Your task to perform on an android device: check out phone information Image 0: 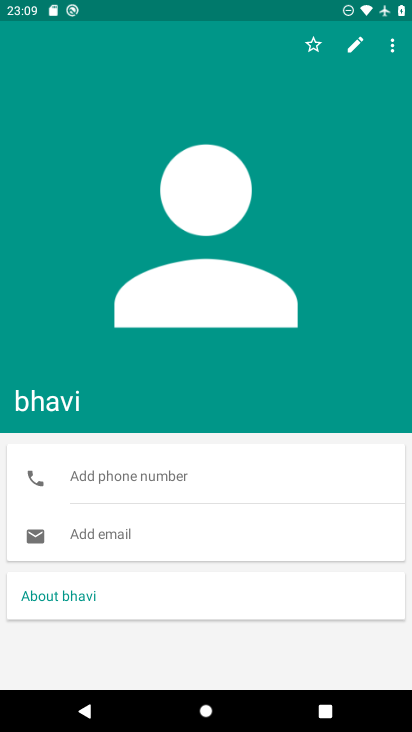
Step 0: press home button
Your task to perform on an android device: check out phone information Image 1: 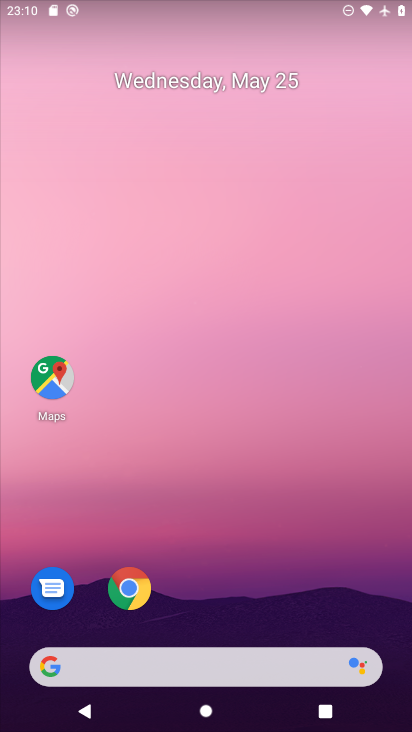
Step 1: drag from (234, 587) to (213, 89)
Your task to perform on an android device: check out phone information Image 2: 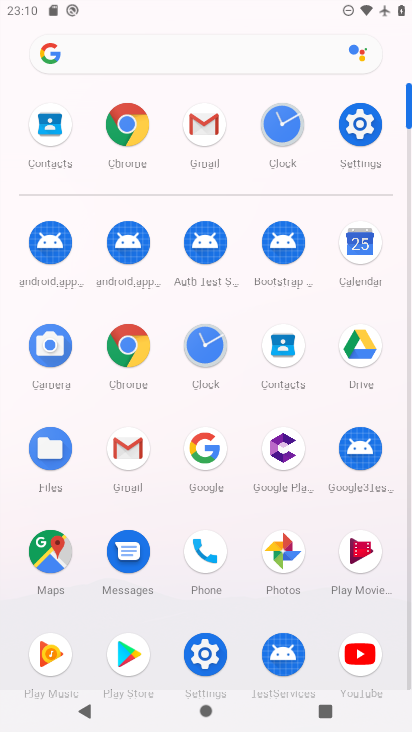
Step 2: click (206, 562)
Your task to perform on an android device: check out phone information Image 3: 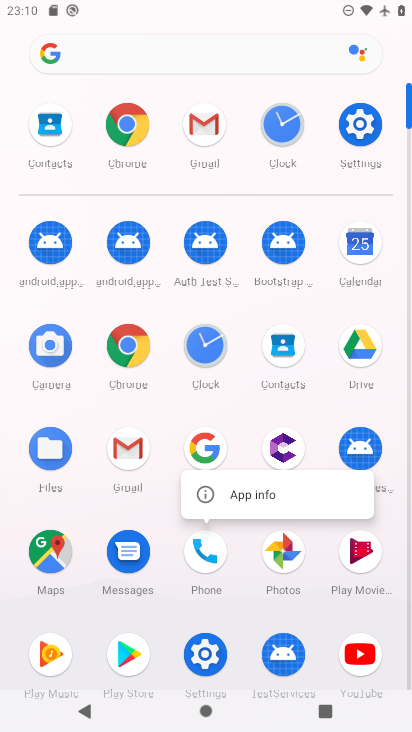
Step 3: click (220, 500)
Your task to perform on an android device: check out phone information Image 4: 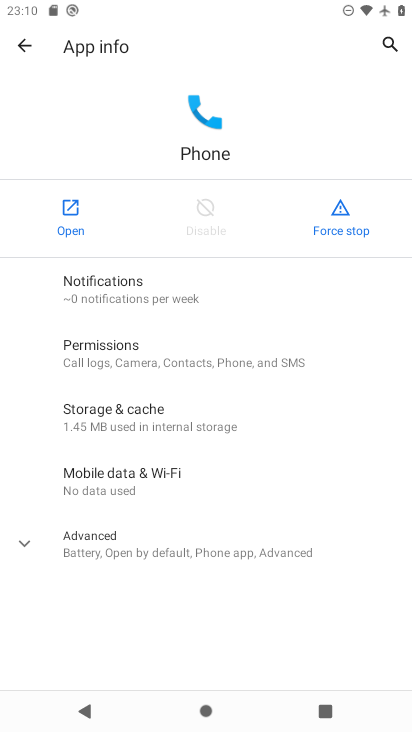
Step 4: task complete